Your task to perform on an android device: turn on javascript in the chrome app Image 0: 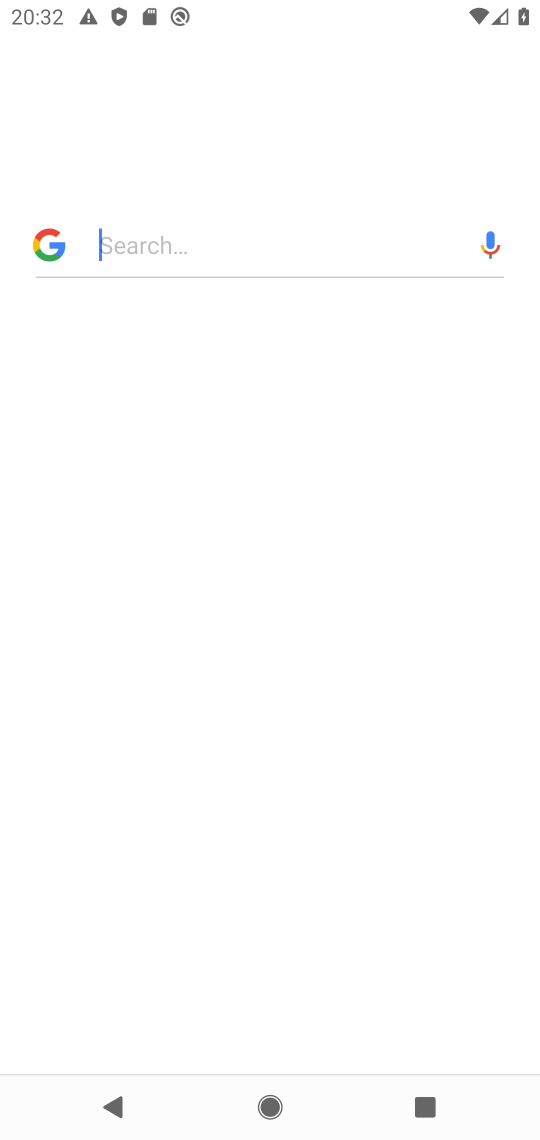
Step 0: press home button
Your task to perform on an android device: turn on javascript in the chrome app Image 1: 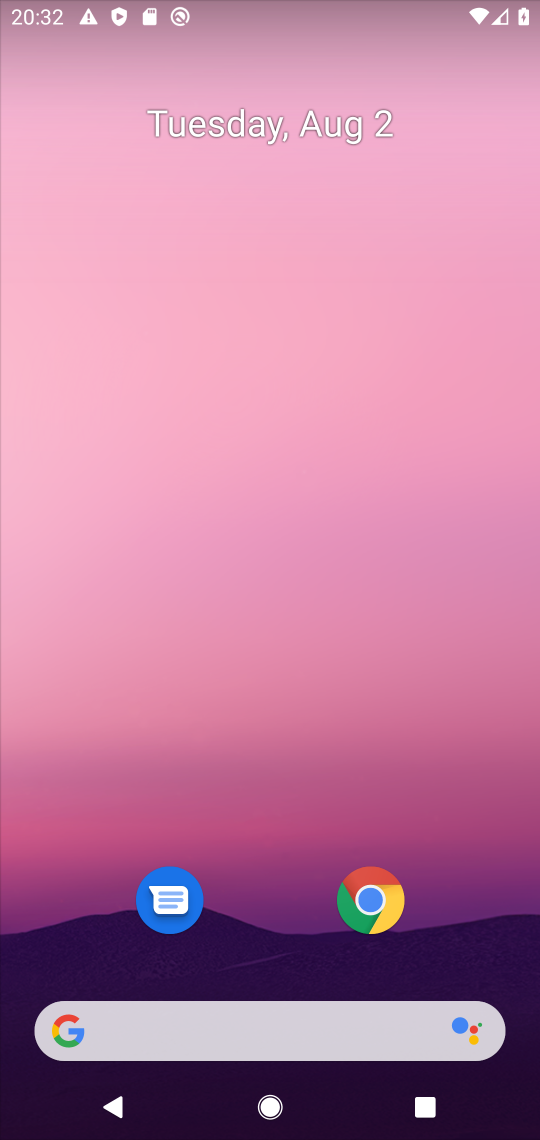
Step 1: click (380, 902)
Your task to perform on an android device: turn on javascript in the chrome app Image 2: 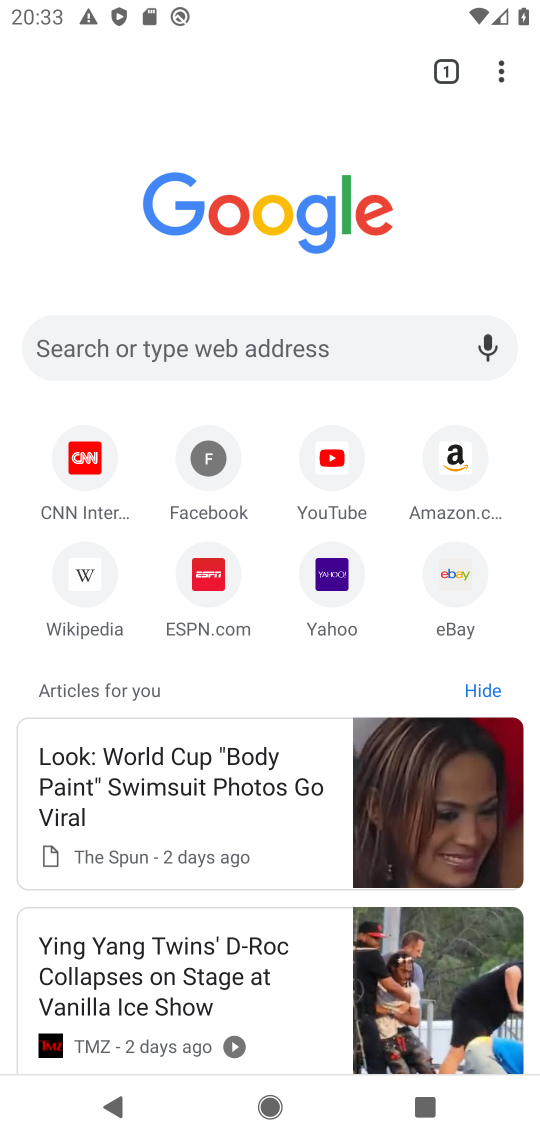
Step 2: click (502, 73)
Your task to perform on an android device: turn on javascript in the chrome app Image 3: 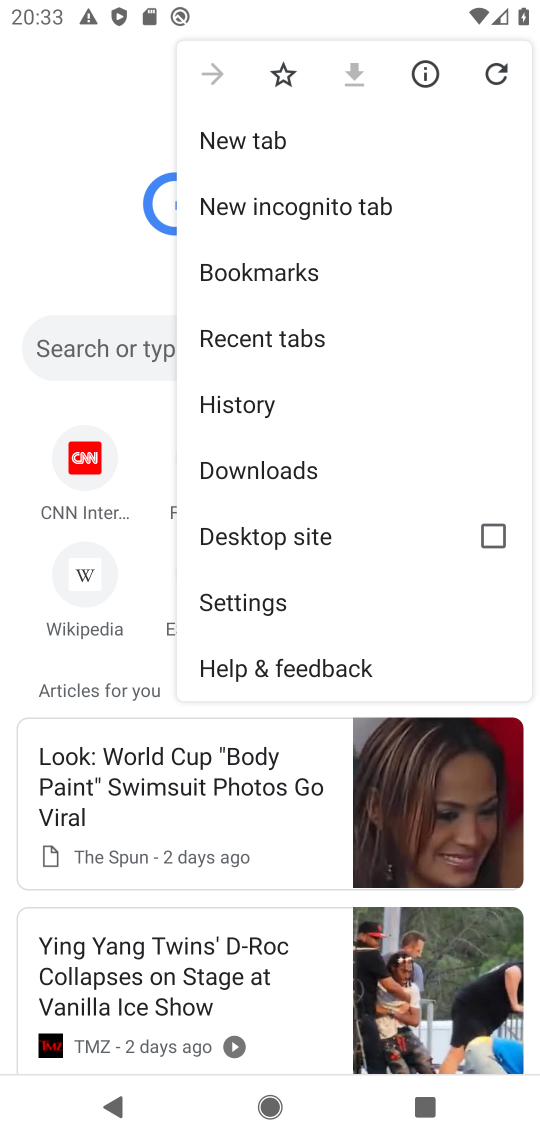
Step 3: click (256, 600)
Your task to perform on an android device: turn on javascript in the chrome app Image 4: 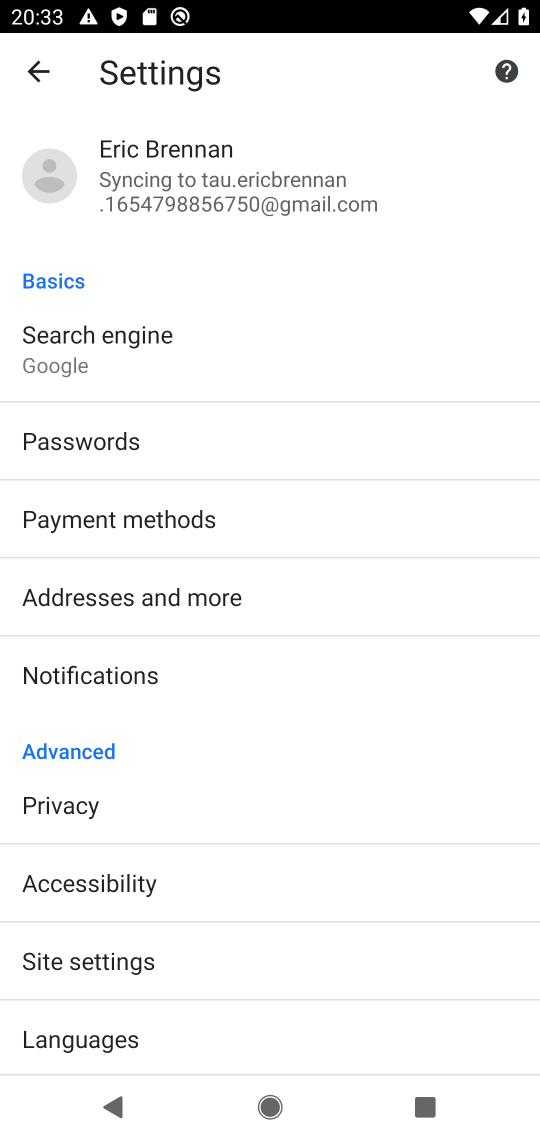
Step 4: click (169, 964)
Your task to perform on an android device: turn on javascript in the chrome app Image 5: 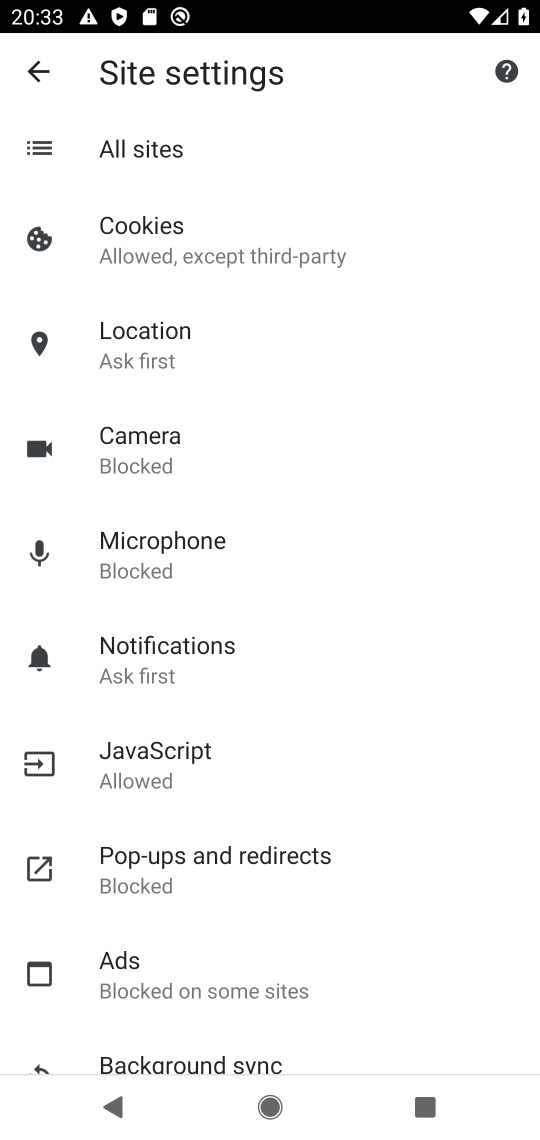
Step 5: click (200, 756)
Your task to perform on an android device: turn on javascript in the chrome app Image 6: 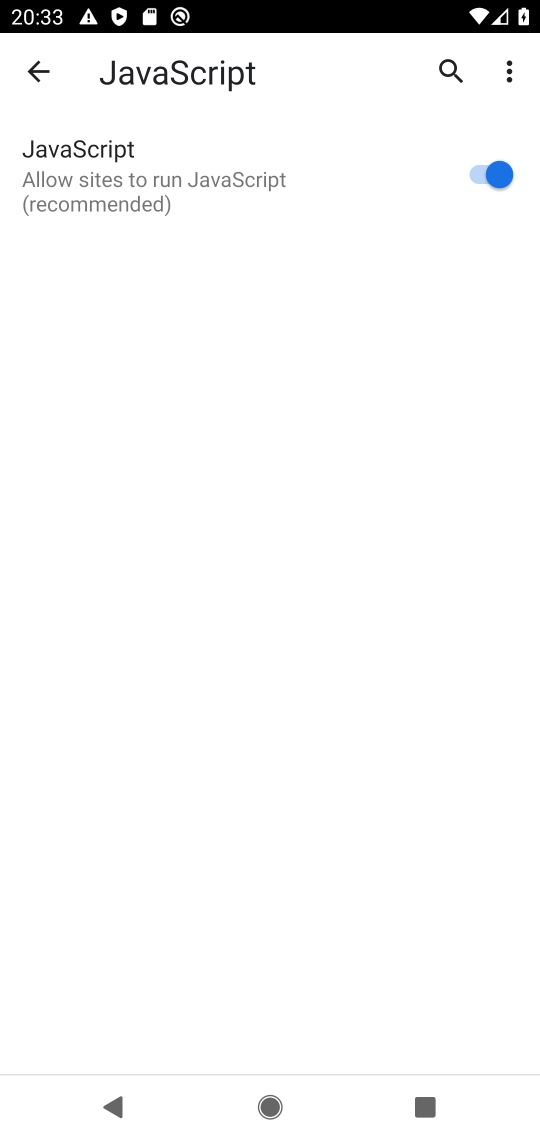
Step 6: task complete